Your task to perform on an android device: all mails in gmail Image 0: 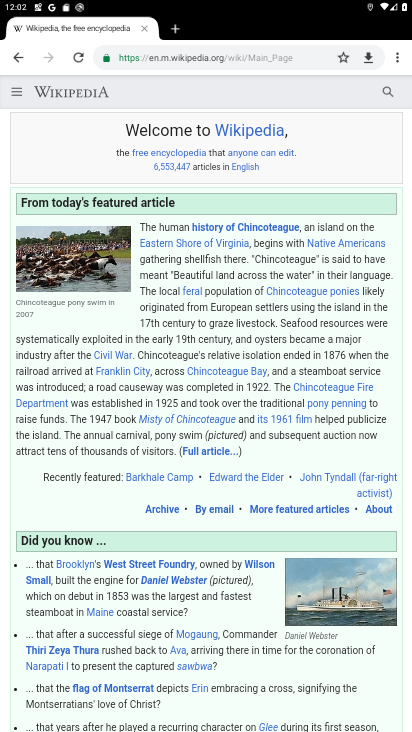
Step 0: press home button
Your task to perform on an android device: all mails in gmail Image 1: 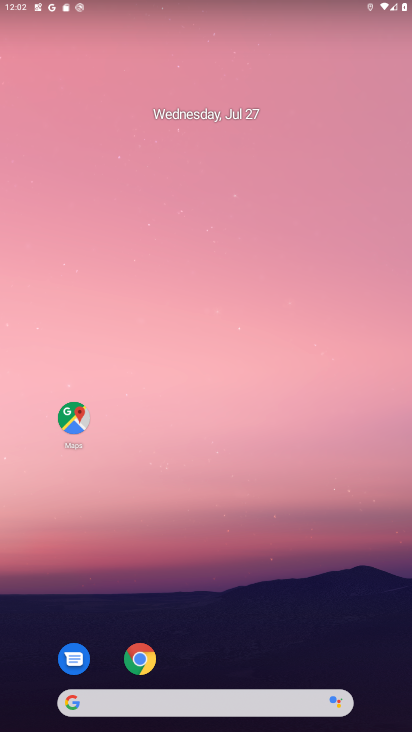
Step 1: drag from (223, 705) to (222, 7)
Your task to perform on an android device: all mails in gmail Image 2: 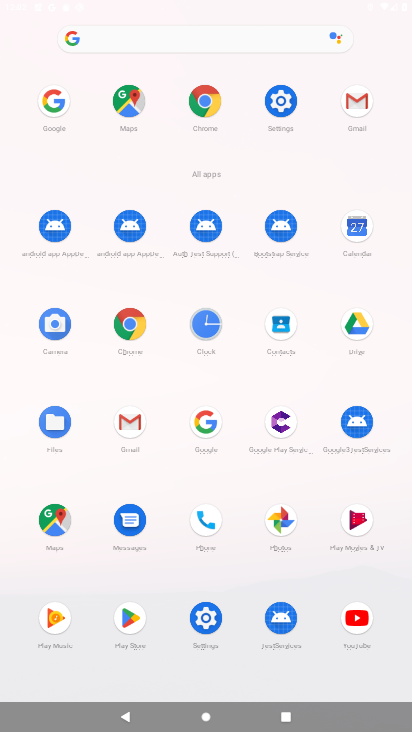
Step 2: click (125, 418)
Your task to perform on an android device: all mails in gmail Image 3: 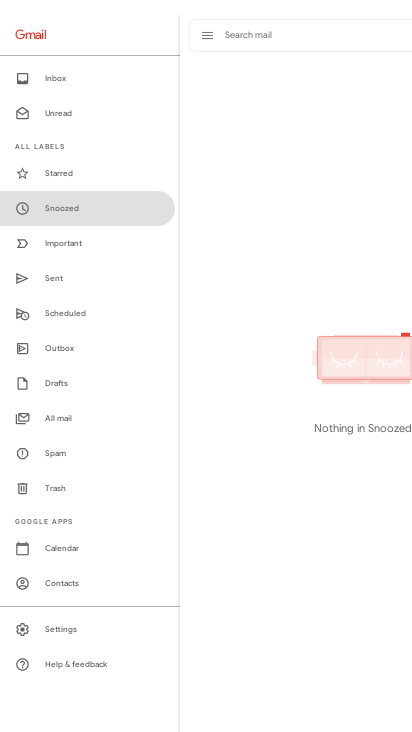
Step 3: click (61, 426)
Your task to perform on an android device: all mails in gmail Image 4: 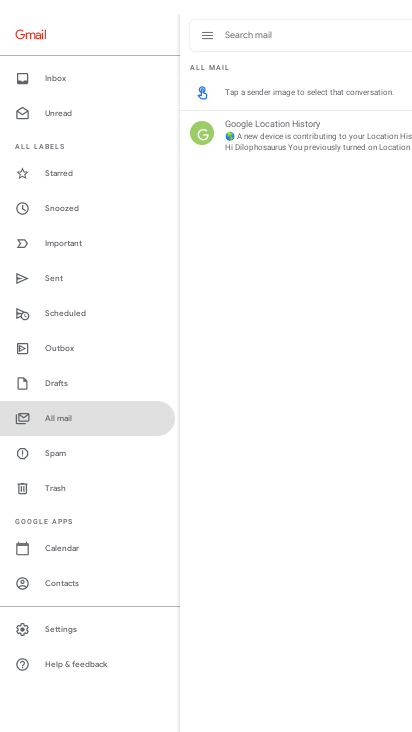
Step 4: task complete